Your task to perform on an android device: Open eBay Image 0: 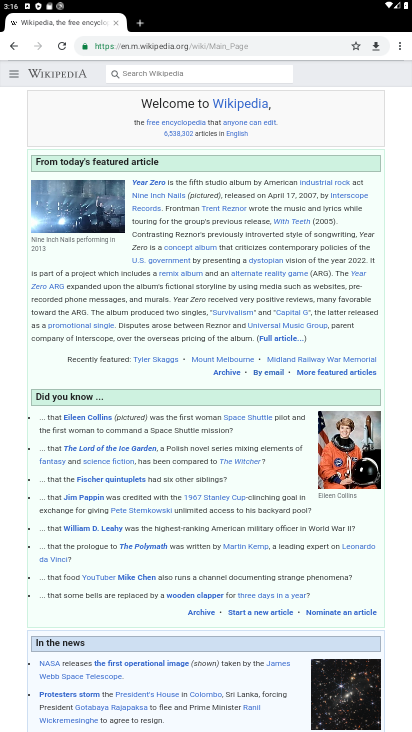
Step 0: click (143, 27)
Your task to perform on an android device: Open eBay Image 1: 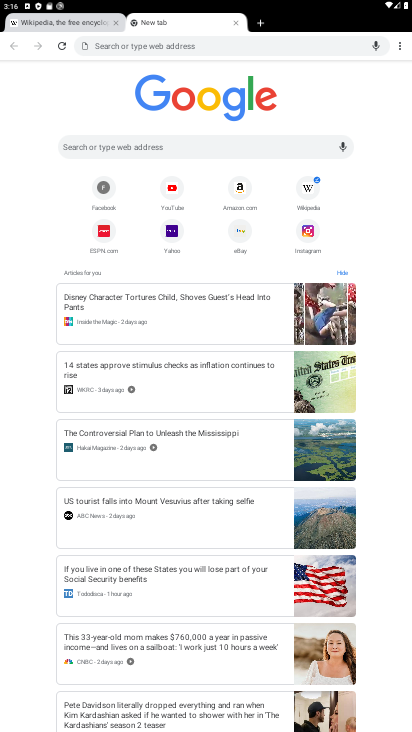
Step 1: click (143, 27)
Your task to perform on an android device: Open eBay Image 2: 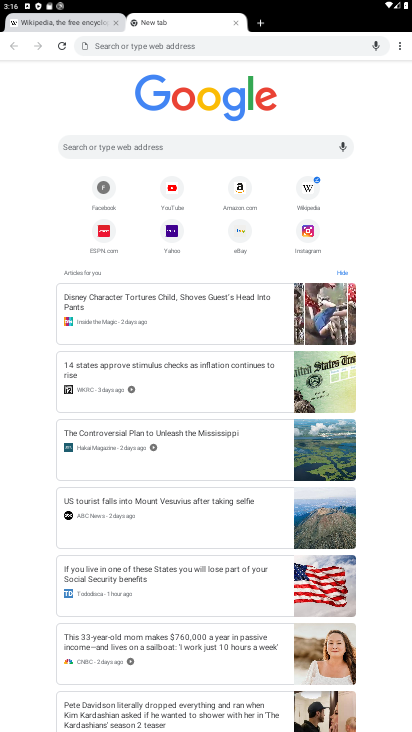
Step 2: click (230, 227)
Your task to perform on an android device: Open eBay Image 3: 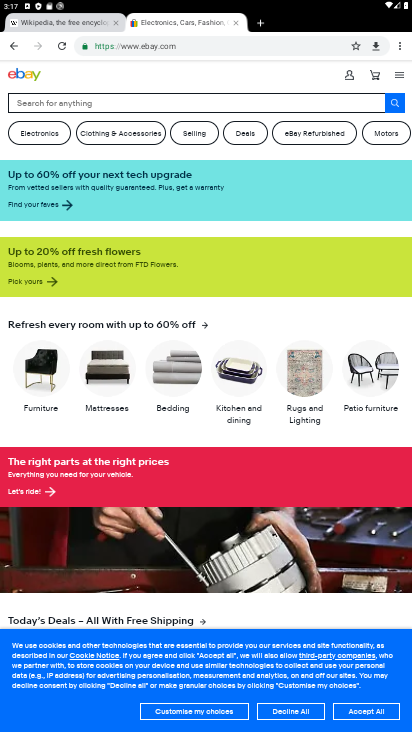
Step 3: task complete